Your task to perform on an android device: Open calendar and show me the third week of next month Image 0: 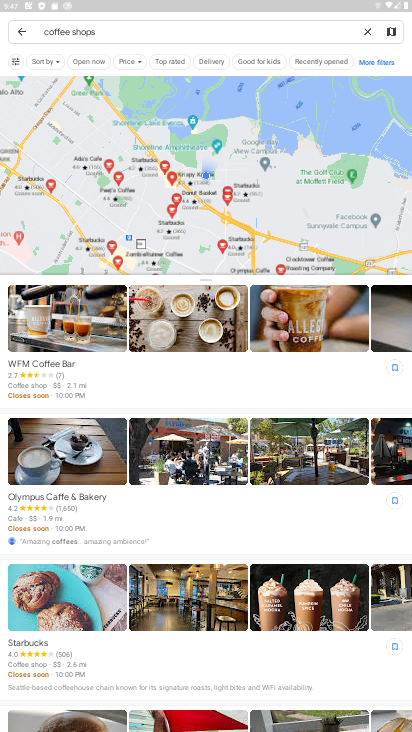
Step 0: press home button
Your task to perform on an android device: Open calendar and show me the third week of next month Image 1: 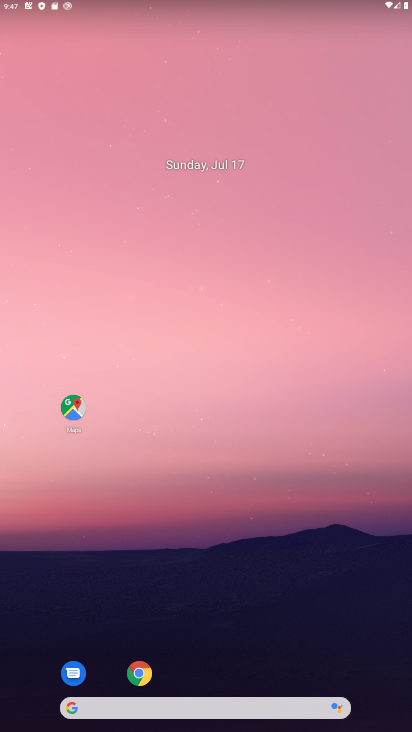
Step 1: drag from (202, 637) to (239, 65)
Your task to perform on an android device: Open calendar and show me the third week of next month Image 2: 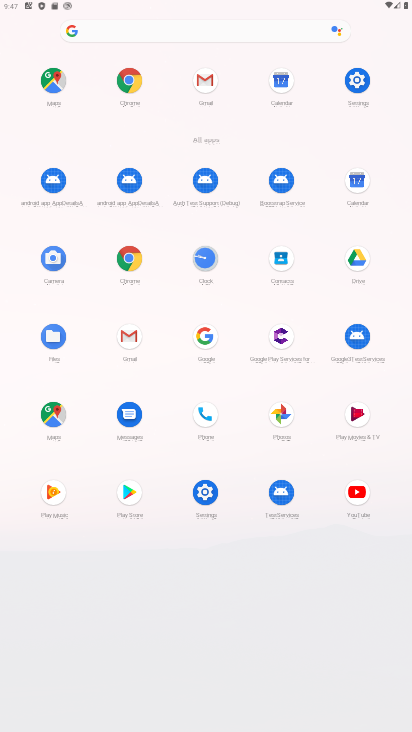
Step 2: click (359, 178)
Your task to perform on an android device: Open calendar and show me the third week of next month Image 3: 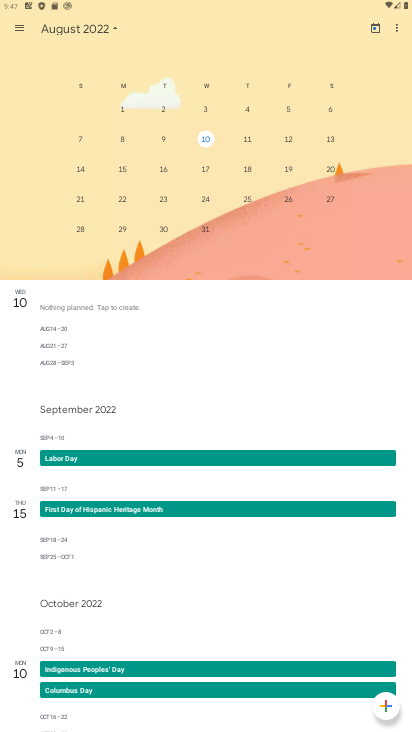
Step 3: click (203, 170)
Your task to perform on an android device: Open calendar and show me the third week of next month Image 4: 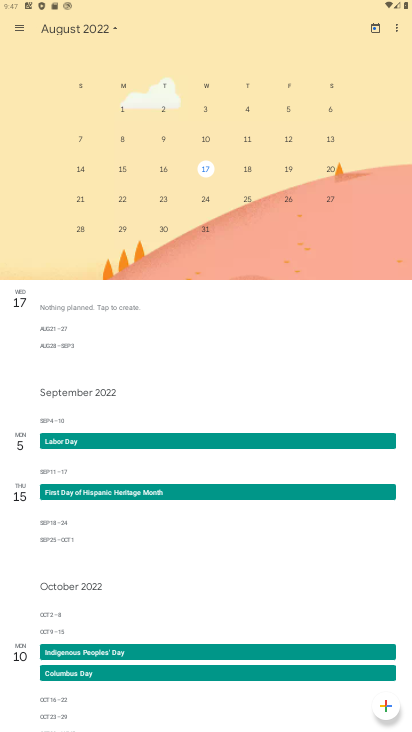
Step 4: task complete